Your task to perform on an android device: Check the news Image 0: 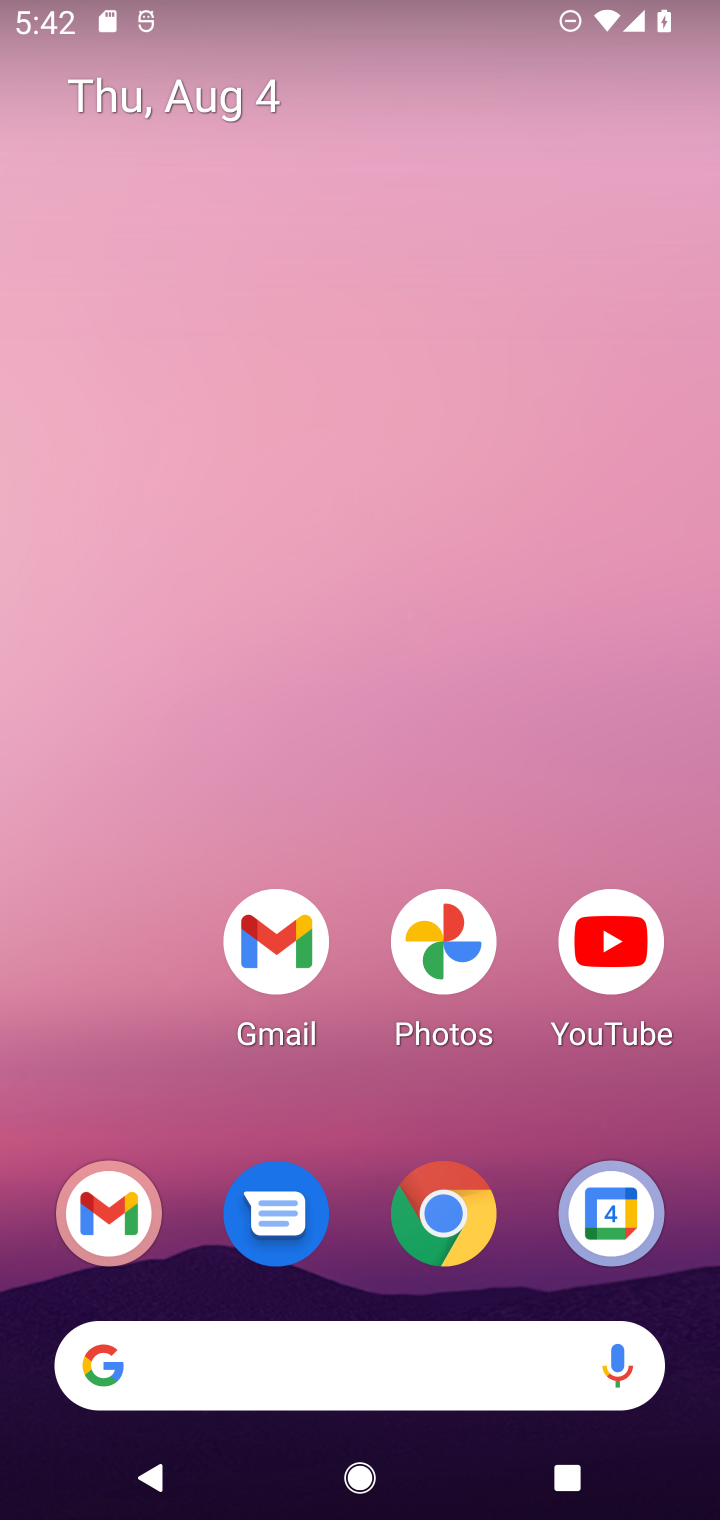
Step 0: drag from (35, 507) to (684, 507)
Your task to perform on an android device: Check the news Image 1: 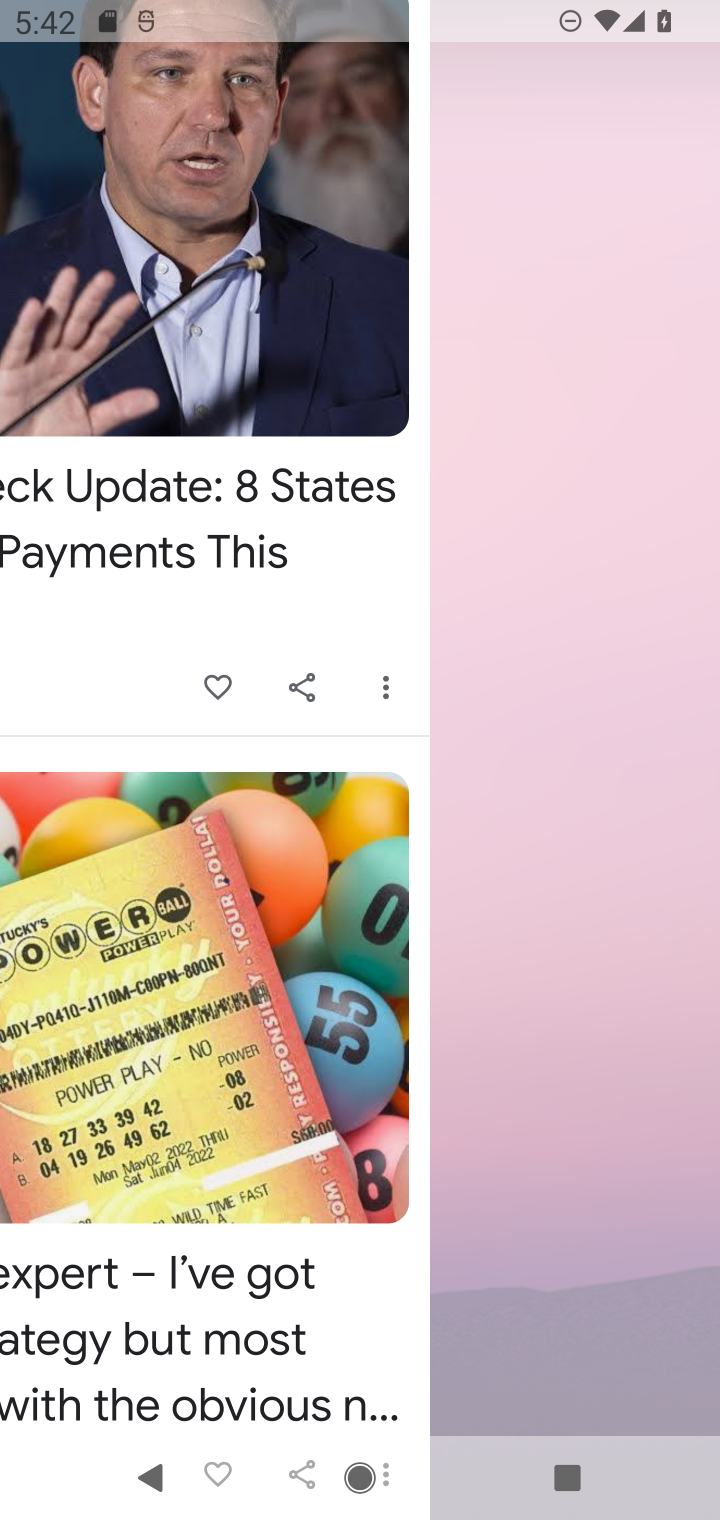
Step 1: task complete